Your task to perform on an android device: Open location settings Image 0: 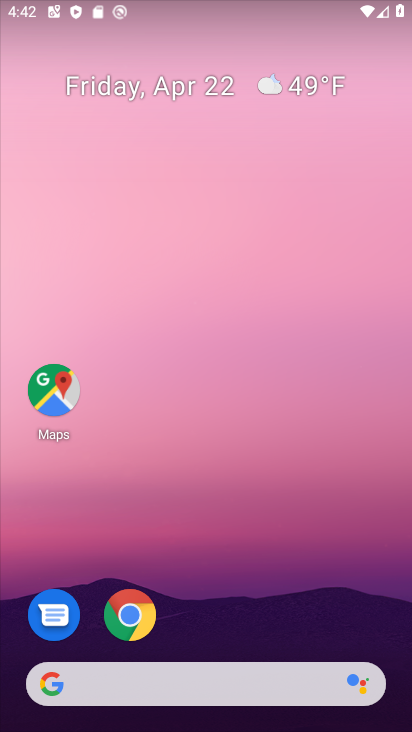
Step 0: drag from (233, 566) to (224, 217)
Your task to perform on an android device: Open location settings Image 1: 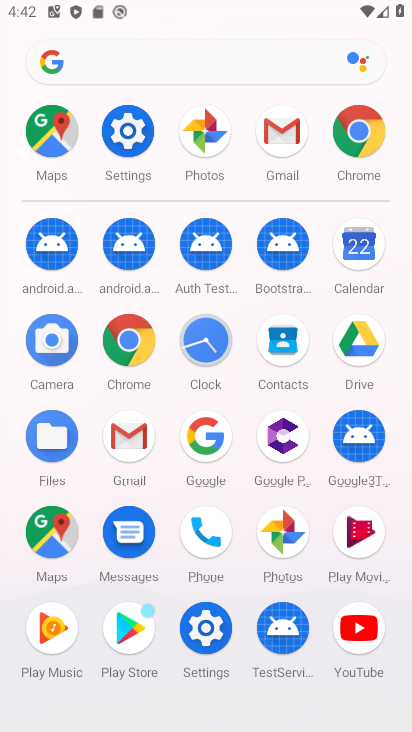
Step 1: click (124, 143)
Your task to perform on an android device: Open location settings Image 2: 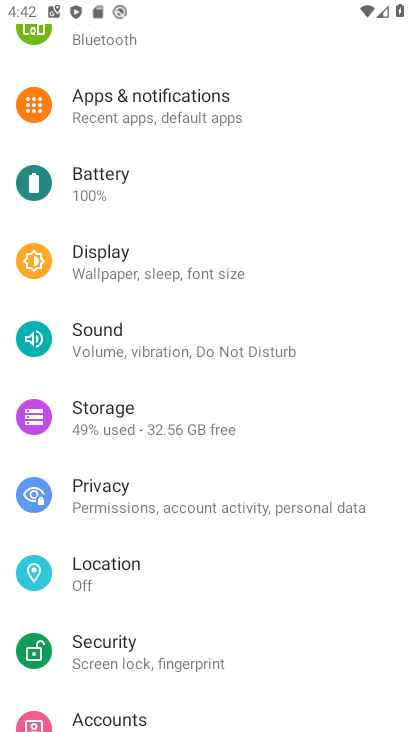
Step 2: click (167, 558)
Your task to perform on an android device: Open location settings Image 3: 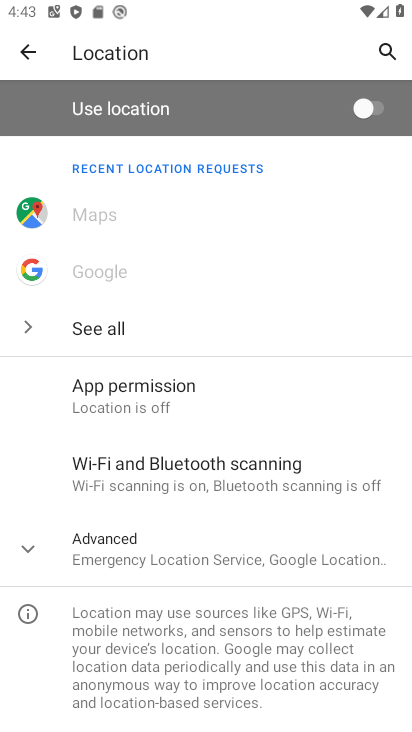
Step 3: task complete